Your task to perform on an android device: move an email to a new category in the gmail app Image 0: 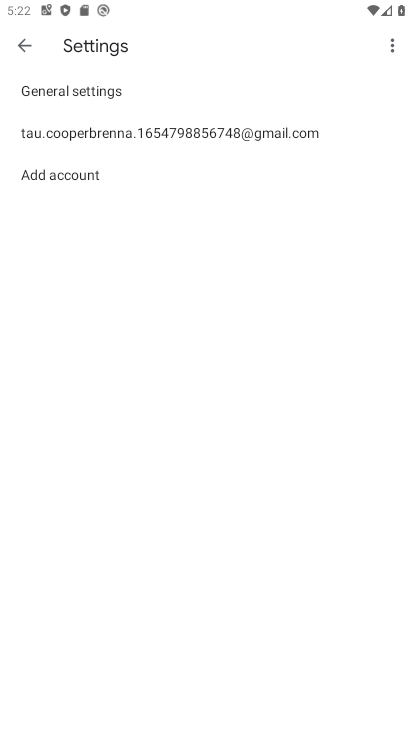
Step 0: click (19, 49)
Your task to perform on an android device: move an email to a new category in the gmail app Image 1: 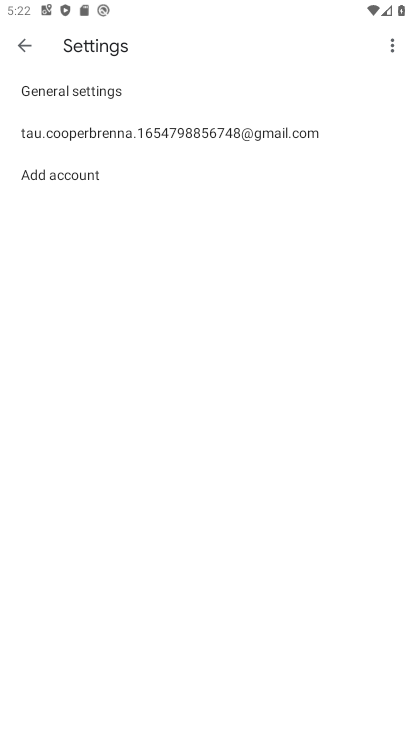
Step 1: click (19, 49)
Your task to perform on an android device: move an email to a new category in the gmail app Image 2: 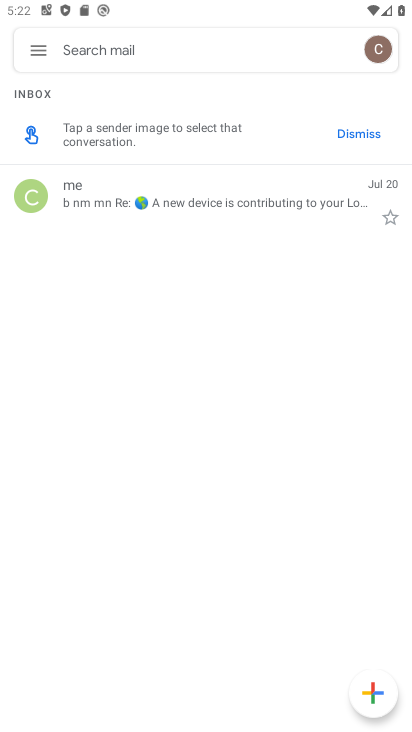
Step 2: click (247, 204)
Your task to perform on an android device: move an email to a new category in the gmail app Image 3: 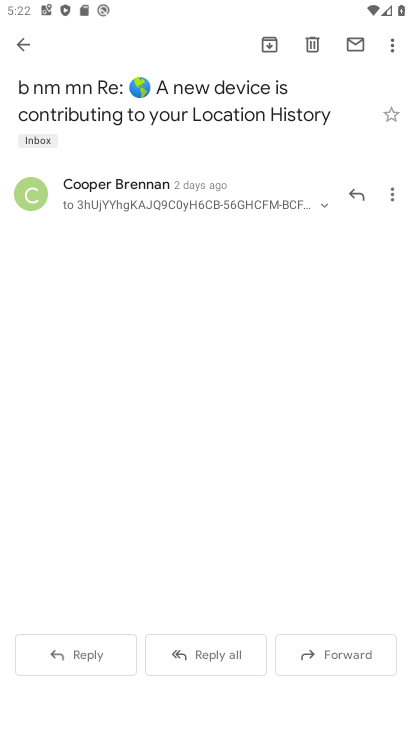
Step 3: click (395, 44)
Your task to perform on an android device: move an email to a new category in the gmail app Image 4: 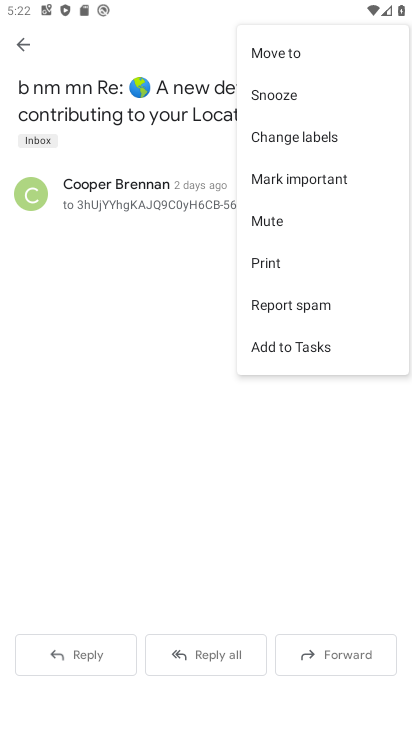
Step 4: click (297, 138)
Your task to perform on an android device: move an email to a new category in the gmail app Image 5: 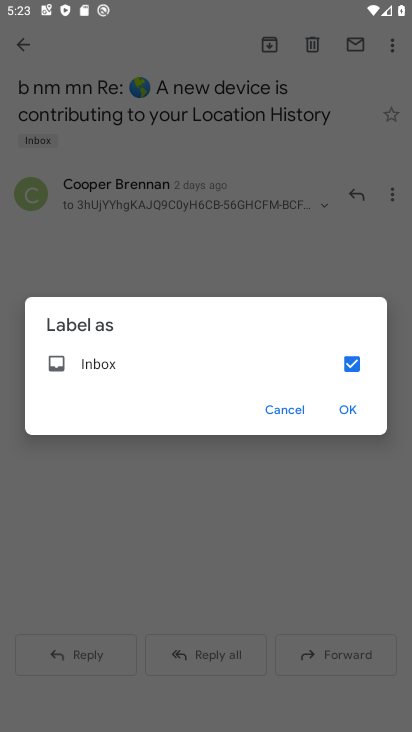
Step 5: click (354, 360)
Your task to perform on an android device: move an email to a new category in the gmail app Image 6: 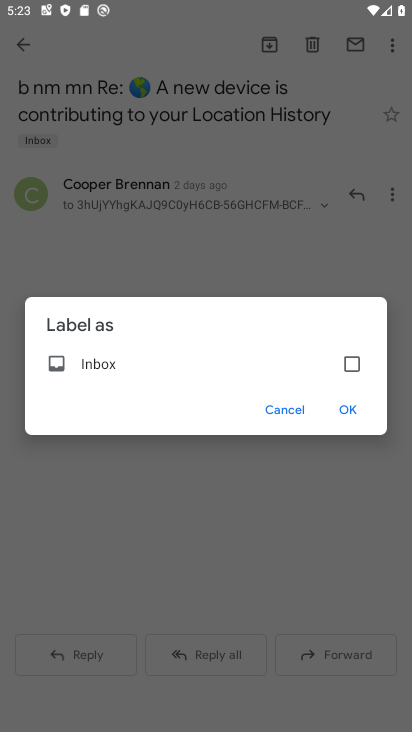
Step 6: click (351, 405)
Your task to perform on an android device: move an email to a new category in the gmail app Image 7: 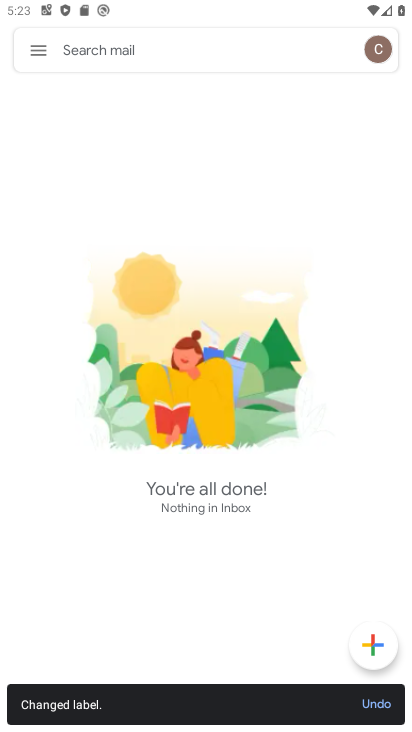
Step 7: task complete